Your task to perform on an android device: Add bose quietcomfort 35 to the cart on bestbuy, then select checkout. Image 0: 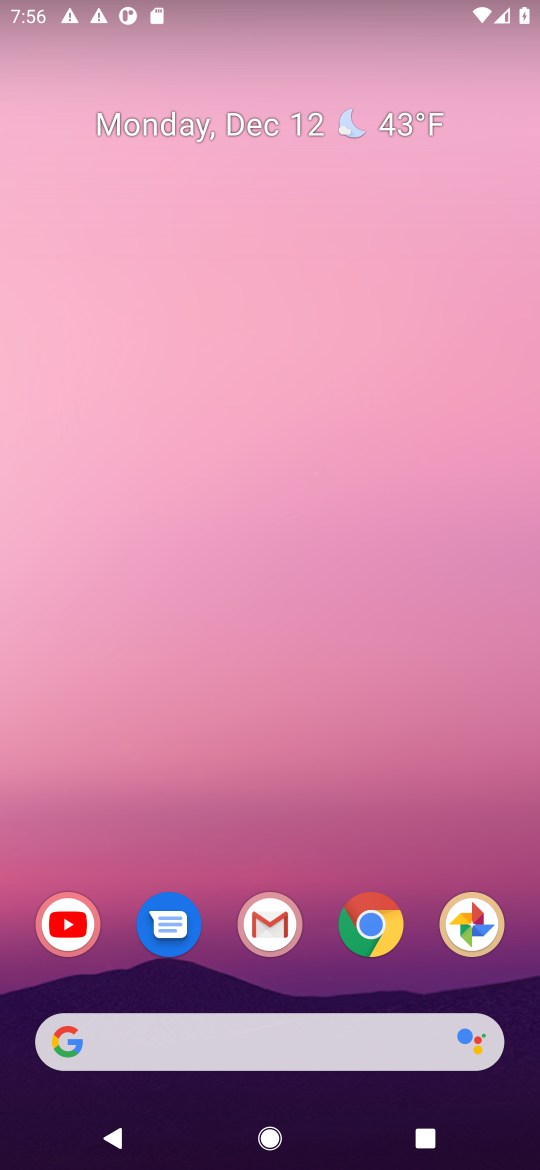
Step 0: click (218, 1034)
Your task to perform on an android device: Add bose quietcomfort 35 to the cart on bestbuy, then select checkout. Image 1: 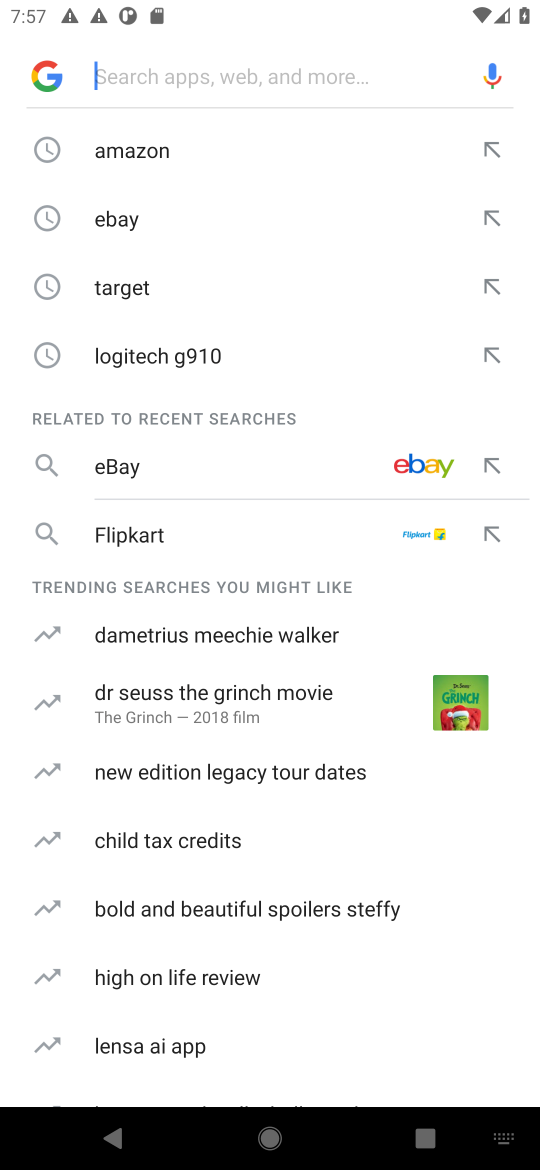
Step 1: type "bestbuy"
Your task to perform on an android device: Add bose quietcomfort 35 to the cart on bestbuy, then select checkout. Image 2: 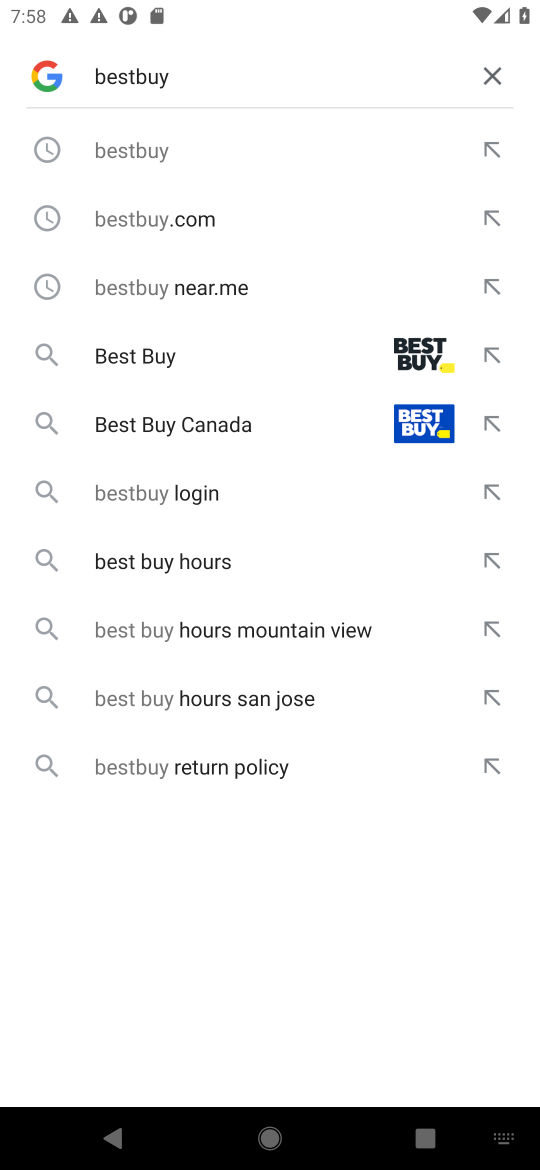
Step 2: click (185, 360)
Your task to perform on an android device: Add bose quietcomfort 35 to the cart on bestbuy, then select checkout. Image 3: 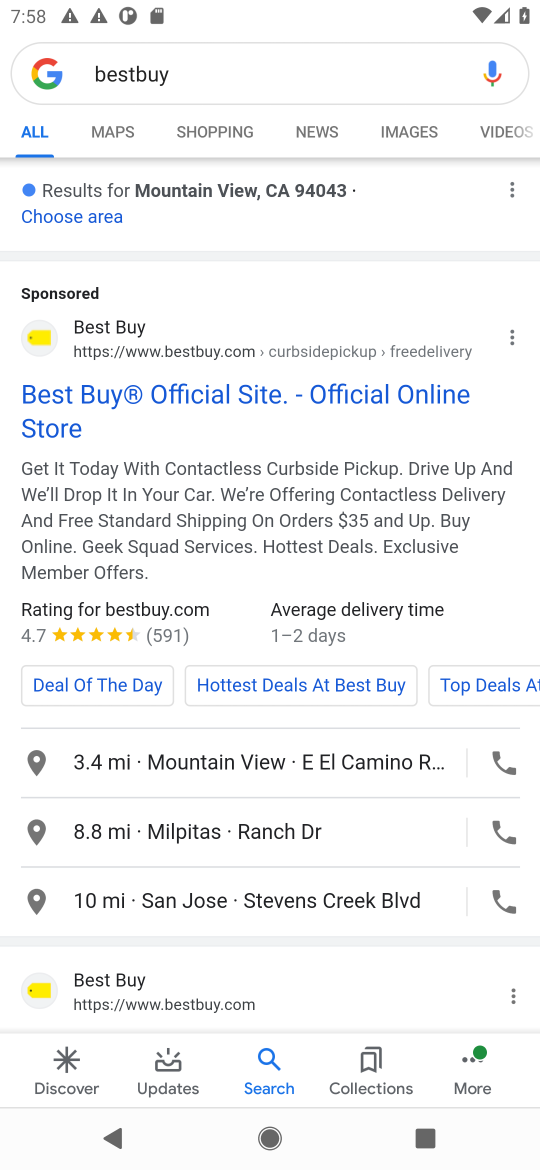
Step 3: click (134, 394)
Your task to perform on an android device: Add bose quietcomfort 35 to the cart on bestbuy, then select checkout. Image 4: 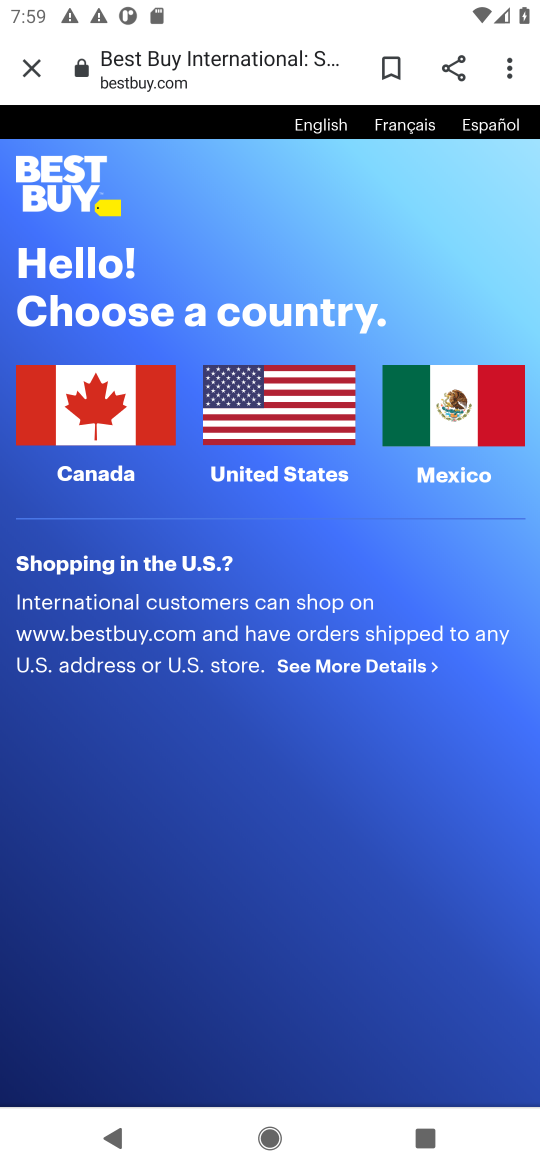
Step 4: click (285, 430)
Your task to perform on an android device: Add bose quietcomfort 35 to the cart on bestbuy, then select checkout. Image 5: 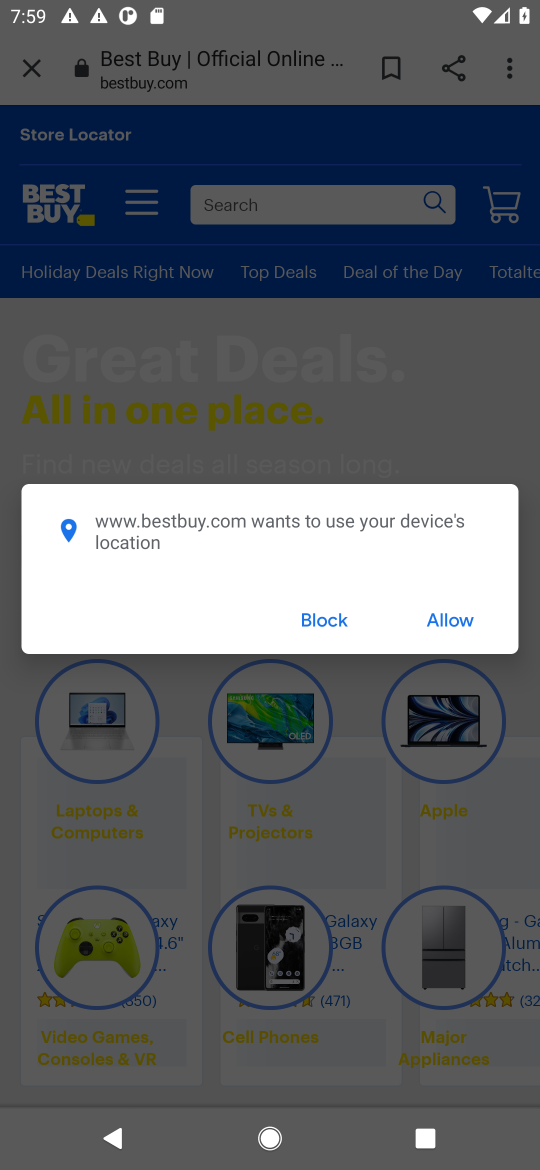
Step 5: click (306, 623)
Your task to perform on an android device: Add bose quietcomfort 35 to the cart on bestbuy, then select checkout. Image 6: 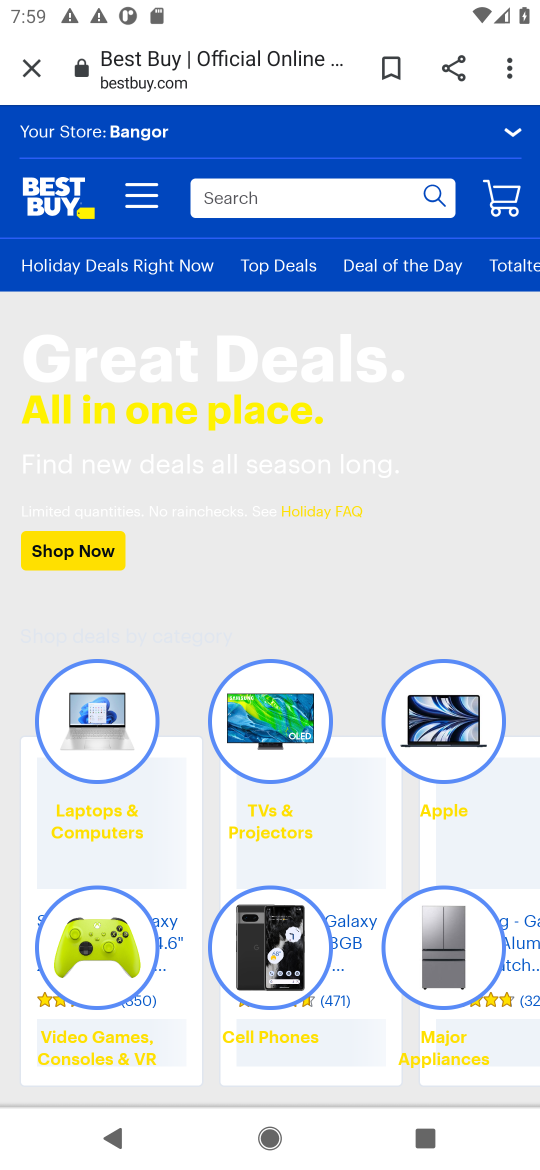
Step 6: click (332, 187)
Your task to perform on an android device: Add bose quietcomfort 35 to the cart on bestbuy, then select checkout. Image 7: 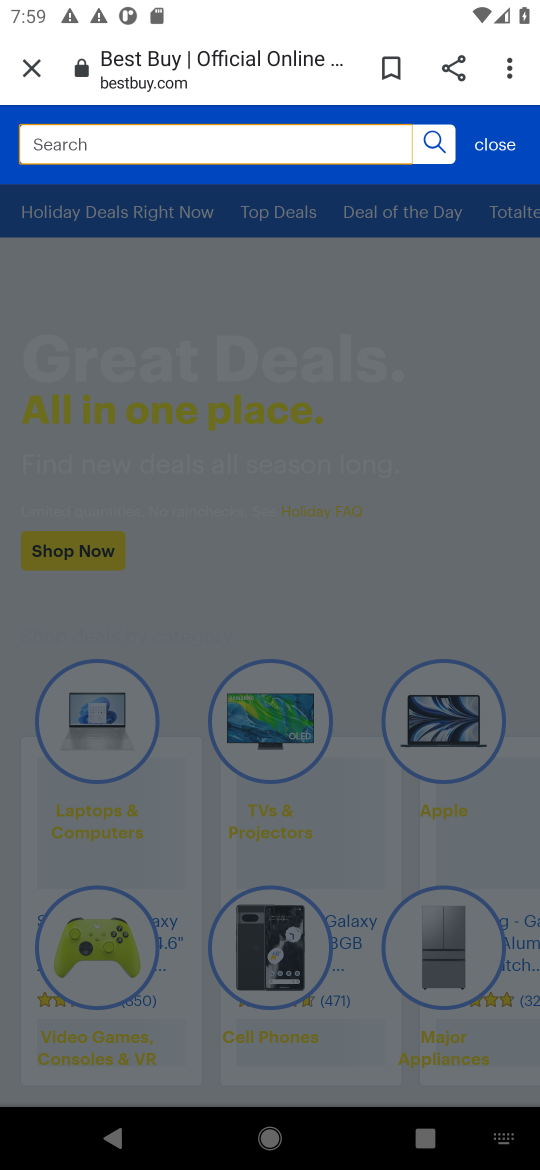
Step 7: type "quietcomfort 35 "
Your task to perform on an android device: Add bose quietcomfort 35 to the cart on bestbuy, then select checkout. Image 8: 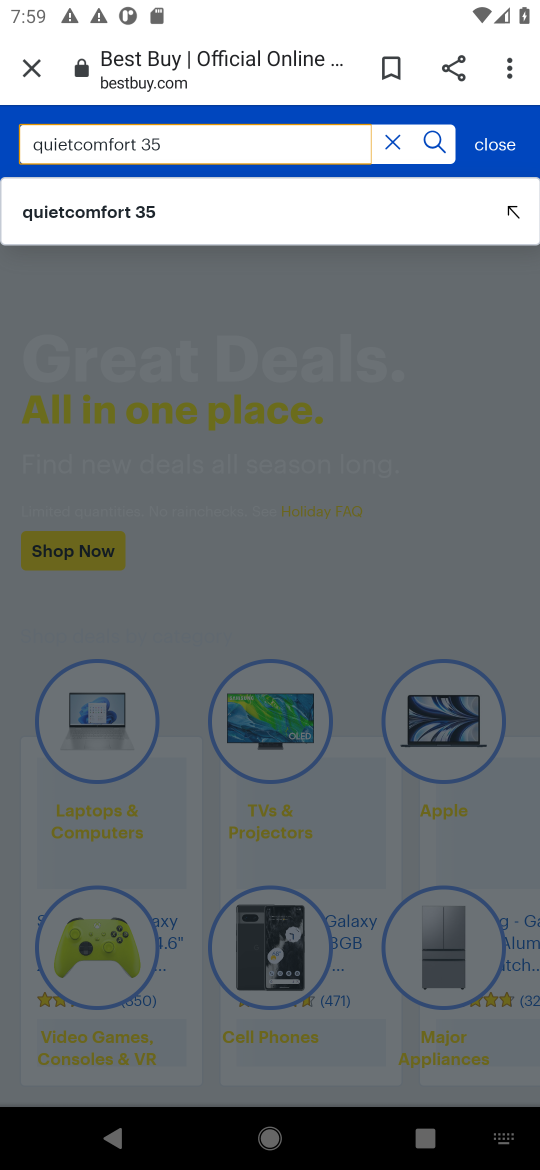
Step 8: click (119, 204)
Your task to perform on an android device: Add bose quietcomfort 35 to the cart on bestbuy, then select checkout. Image 9: 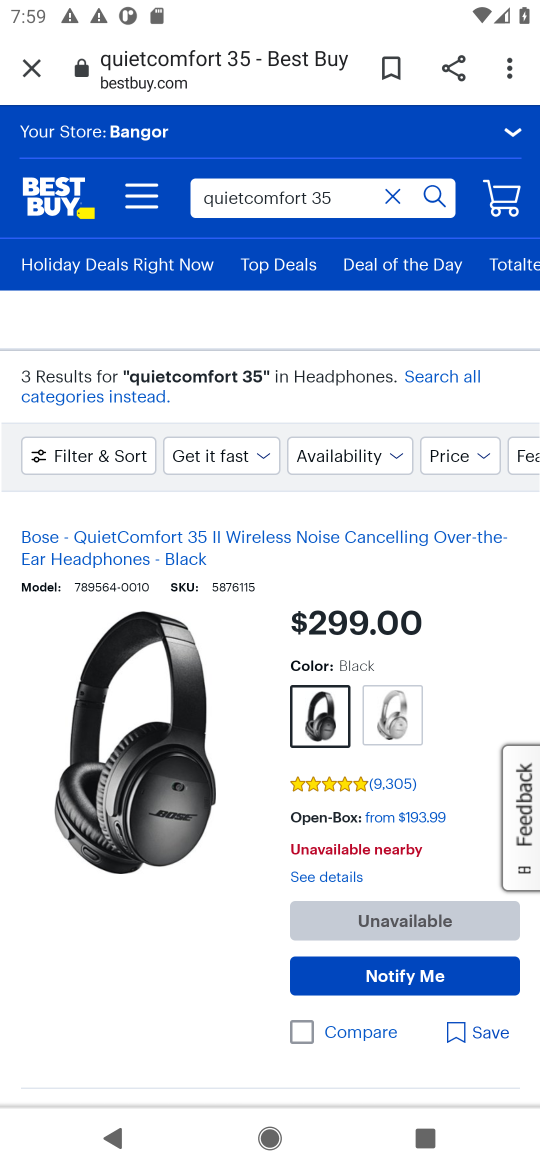
Step 9: task complete